Your task to perform on an android device: Show me the alarms in the clock app Image 0: 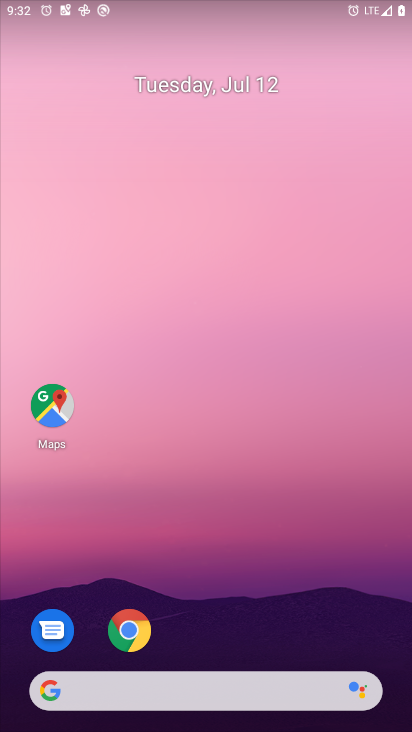
Step 0: press home button
Your task to perform on an android device: Show me the alarms in the clock app Image 1: 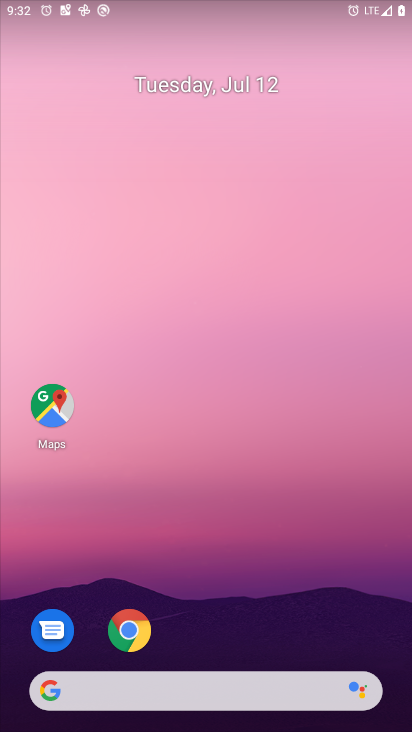
Step 1: drag from (278, 593) to (145, 729)
Your task to perform on an android device: Show me the alarms in the clock app Image 2: 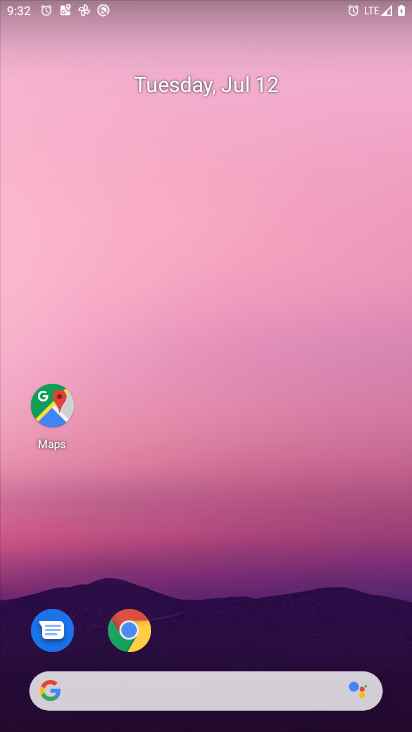
Step 2: drag from (228, 567) to (401, 376)
Your task to perform on an android device: Show me the alarms in the clock app Image 3: 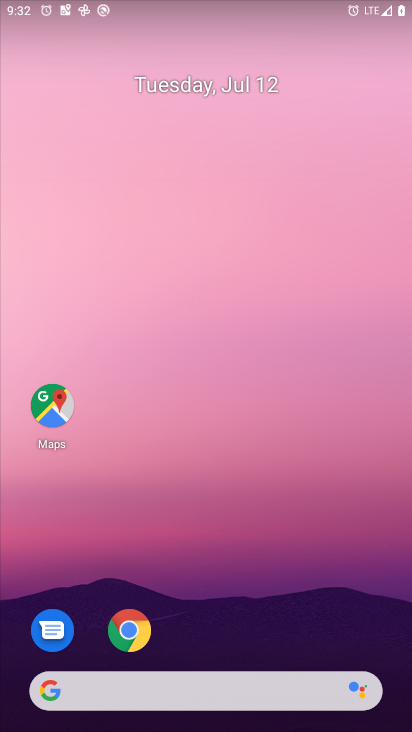
Step 3: drag from (265, 592) to (408, 695)
Your task to perform on an android device: Show me the alarms in the clock app Image 4: 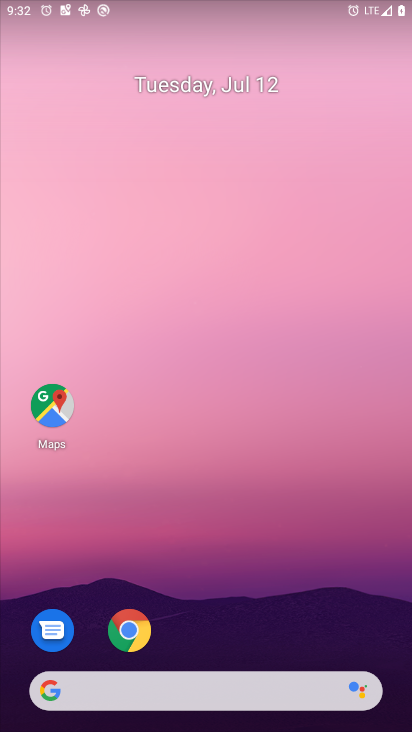
Step 4: drag from (253, 658) to (400, 373)
Your task to perform on an android device: Show me the alarms in the clock app Image 5: 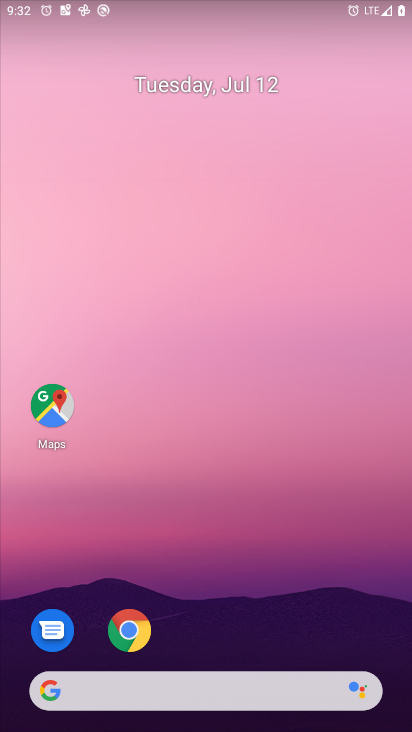
Step 5: drag from (279, 627) to (281, 20)
Your task to perform on an android device: Show me the alarms in the clock app Image 6: 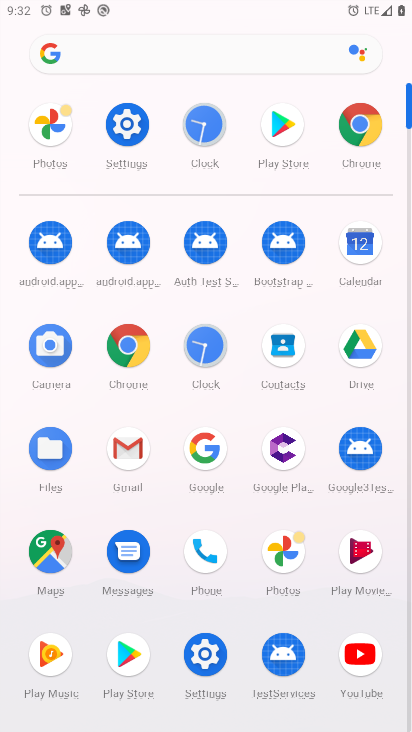
Step 6: click (216, 348)
Your task to perform on an android device: Show me the alarms in the clock app Image 7: 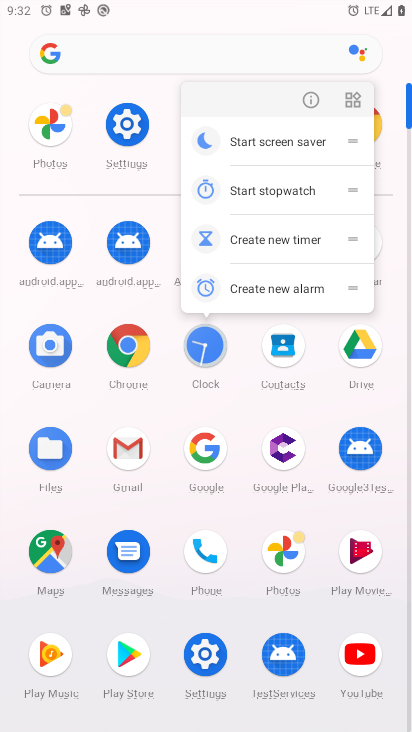
Step 7: click (215, 348)
Your task to perform on an android device: Show me the alarms in the clock app Image 8: 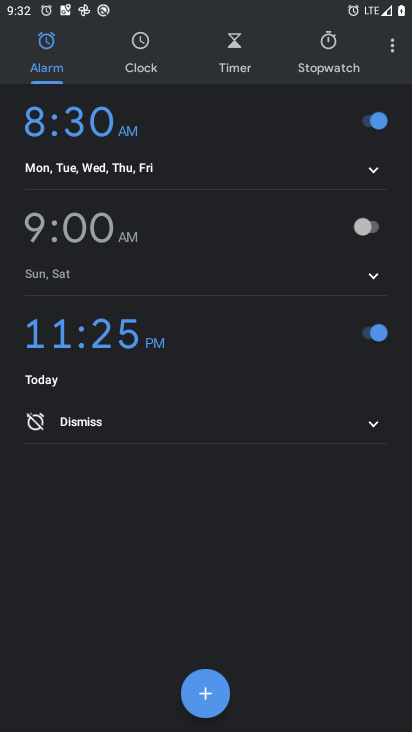
Step 8: task complete